Your task to perform on an android device: open wifi settings Image 0: 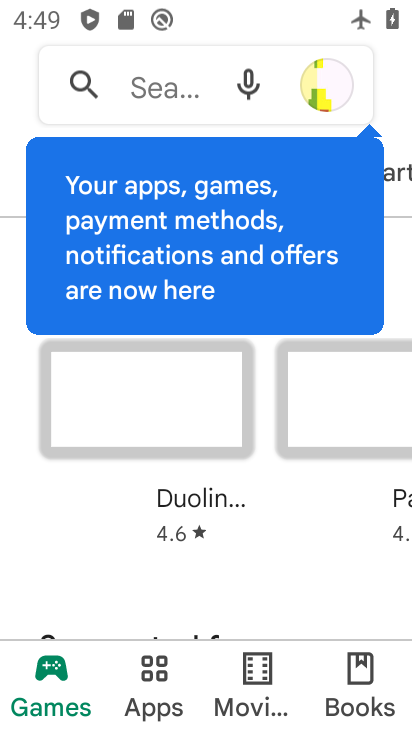
Step 0: press home button
Your task to perform on an android device: open wifi settings Image 1: 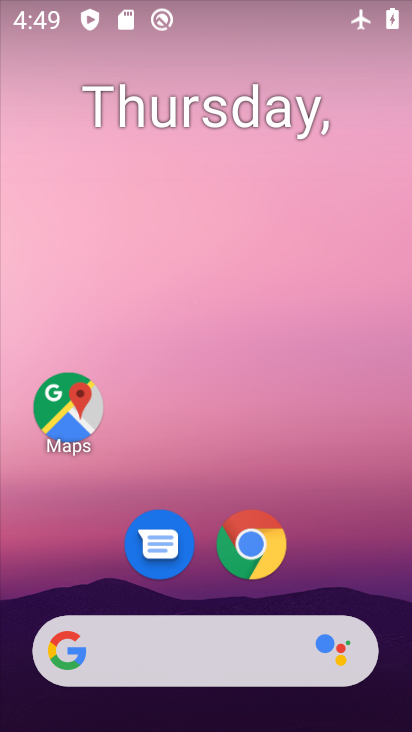
Step 1: drag from (346, 567) to (355, 41)
Your task to perform on an android device: open wifi settings Image 2: 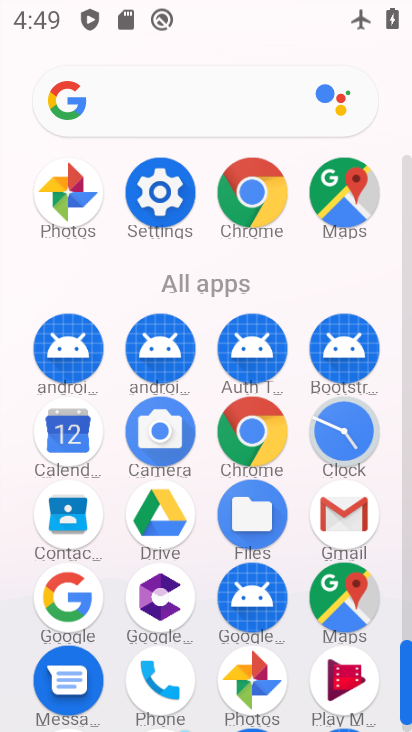
Step 2: click (170, 181)
Your task to perform on an android device: open wifi settings Image 3: 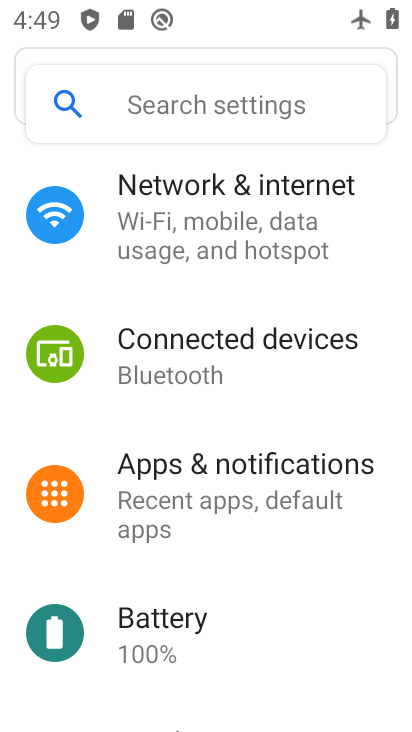
Step 3: click (180, 215)
Your task to perform on an android device: open wifi settings Image 4: 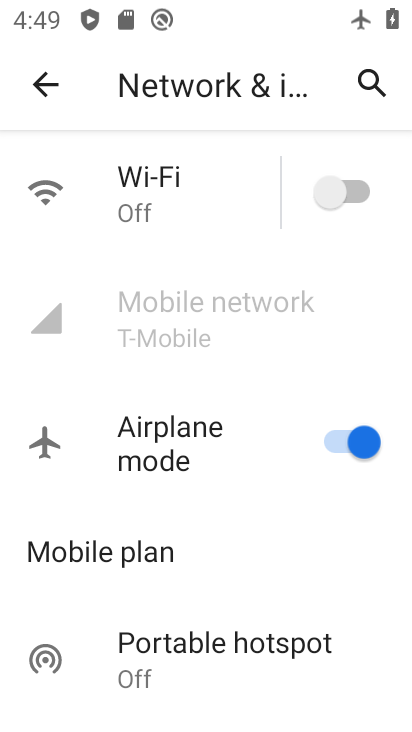
Step 4: click (171, 188)
Your task to perform on an android device: open wifi settings Image 5: 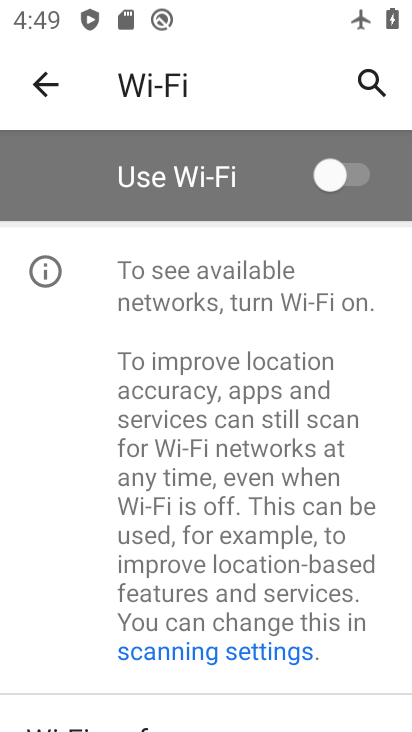
Step 5: task complete